Your task to perform on an android device: Open Yahoo.com Image 0: 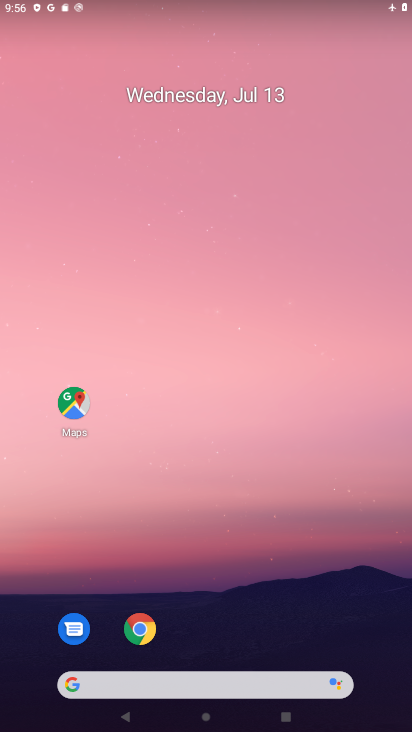
Step 0: drag from (245, 647) to (221, 114)
Your task to perform on an android device: Open Yahoo.com Image 1: 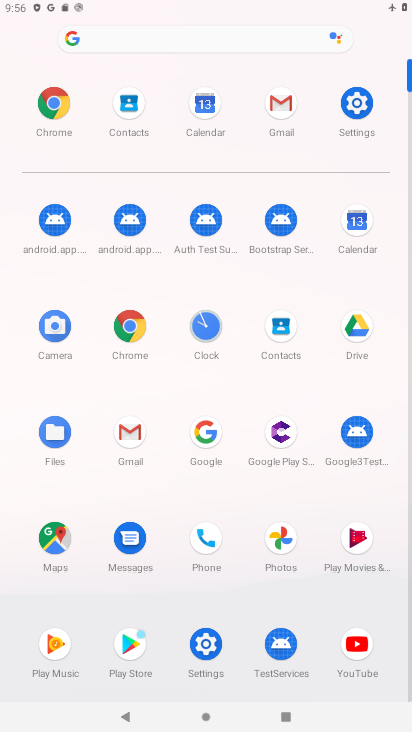
Step 1: click (199, 47)
Your task to perform on an android device: Open Yahoo.com Image 2: 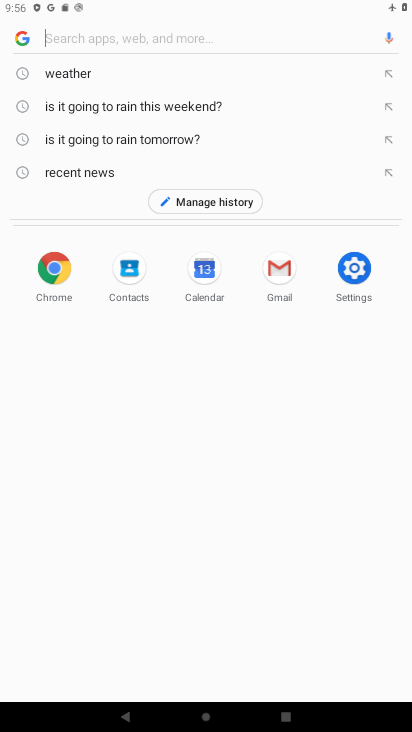
Step 2: type "yahoo.com"
Your task to perform on an android device: Open Yahoo.com Image 3: 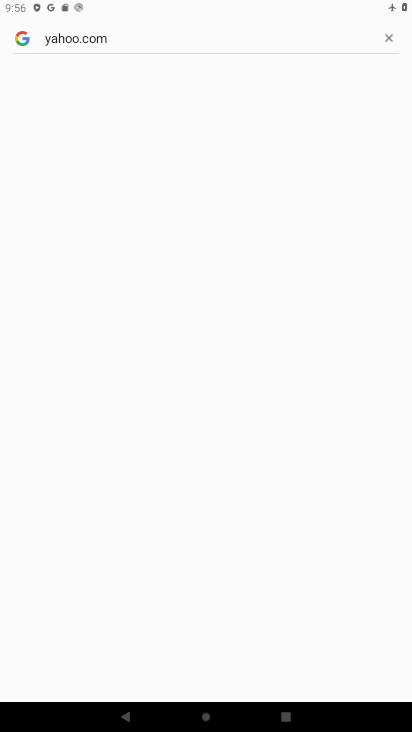
Step 3: task complete